Your task to perform on an android device: Open Yahoo.com Image 0: 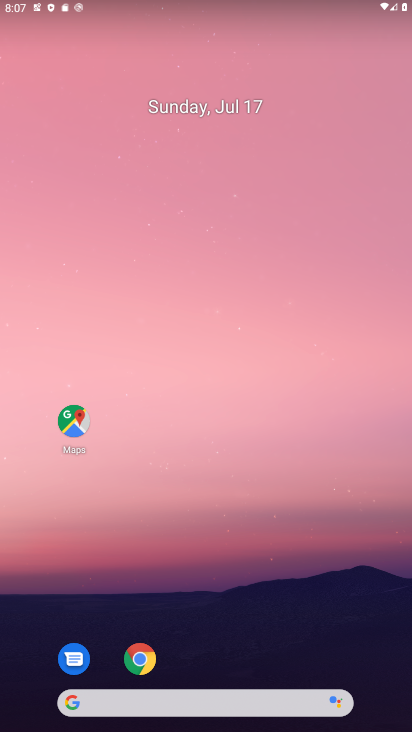
Step 0: click (142, 656)
Your task to perform on an android device: Open Yahoo.com Image 1: 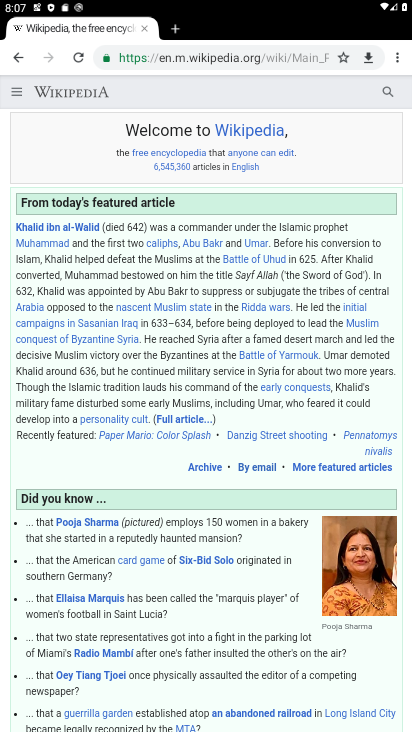
Step 1: click (175, 29)
Your task to perform on an android device: Open Yahoo.com Image 2: 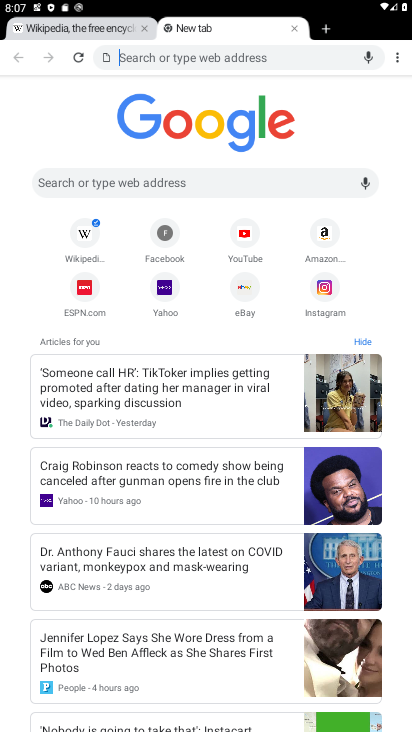
Step 2: click (159, 294)
Your task to perform on an android device: Open Yahoo.com Image 3: 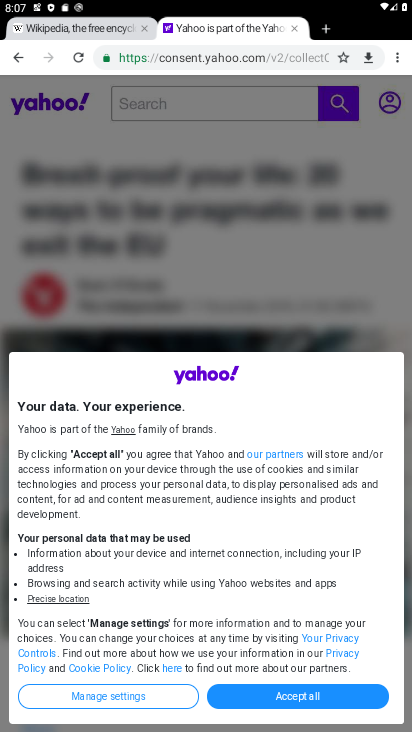
Step 3: task complete